Your task to perform on an android device: What's the weather today? Image 0: 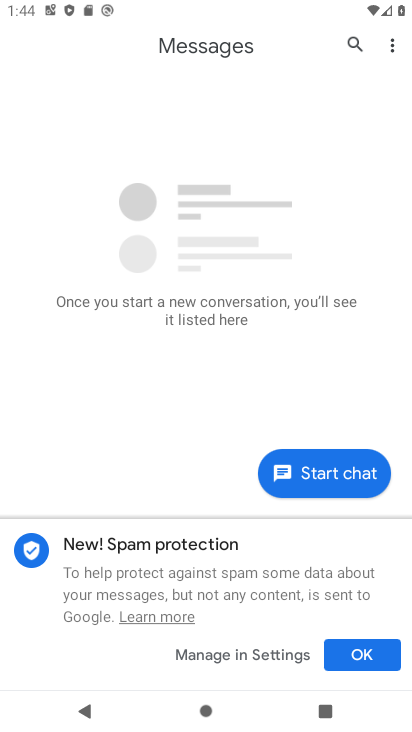
Step 0: press home button
Your task to perform on an android device: What's the weather today? Image 1: 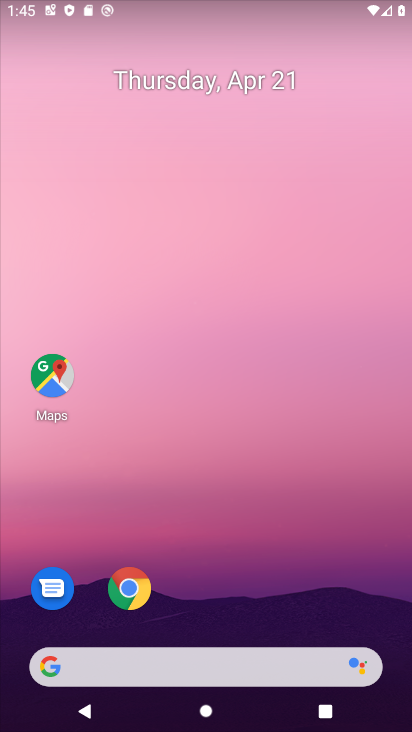
Step 1: drag from (227, 624) to (277, 146)
Your task to perform on an android device: What's the weather today? Image 2: 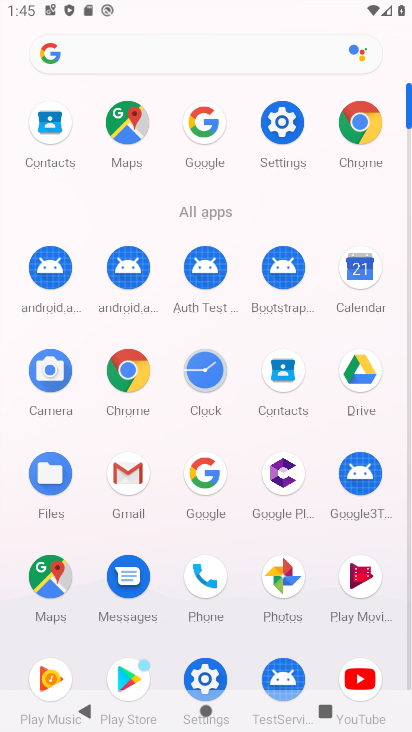
Step 2: click (195, 487)
Your task to perform on an android device: What's the weather today? Image 3: 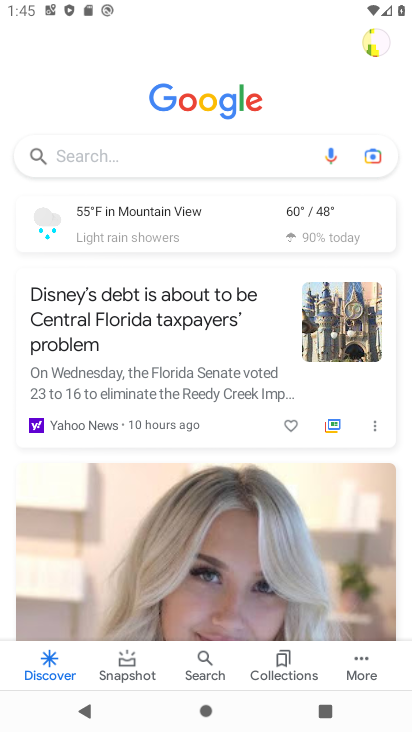
Step 3: click (192, 144)
Your task to perform on an android device: What's the weather today? Image 4: 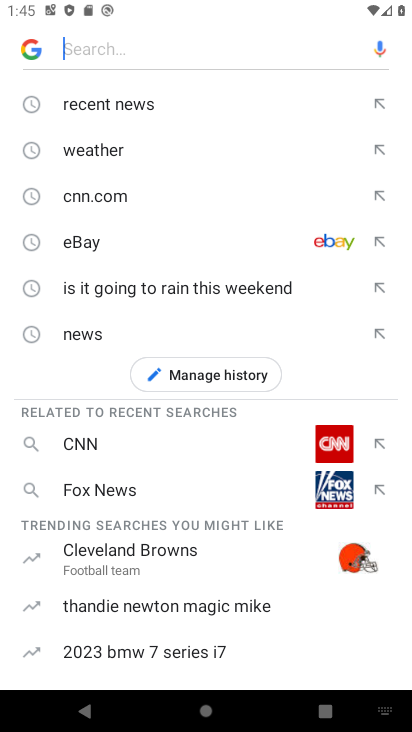
Step 4: click (142, 153)
Your task to perform on an android device: What's the weather today? Image 5: 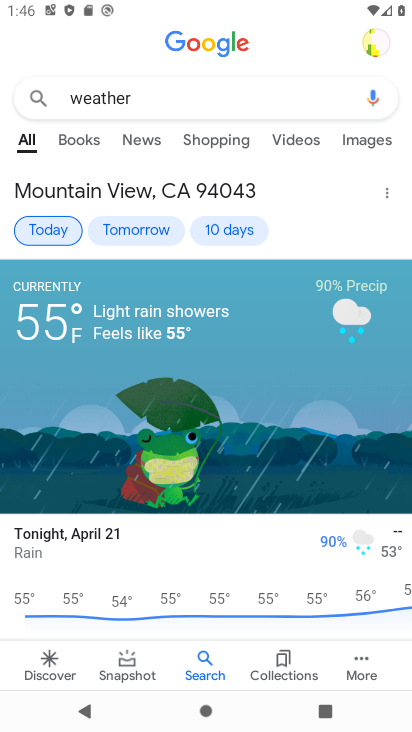
Step 5: task complete